Your task to perform on an android device: Go to Wikipedia Image 0: 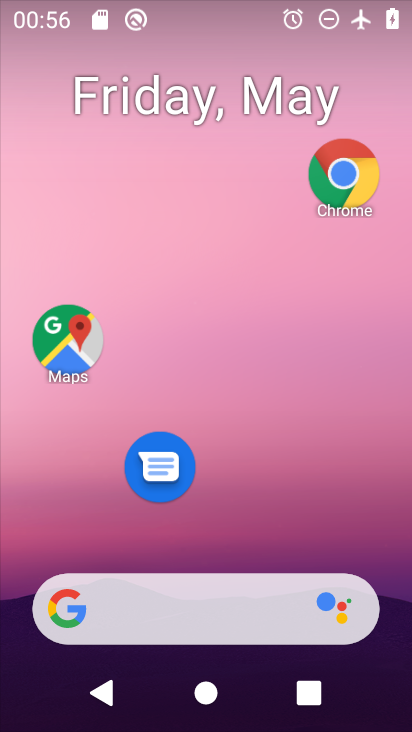
Step 0: click (227, 309)
Your task to perform on an android device: Go to Wikipedia Image 1: 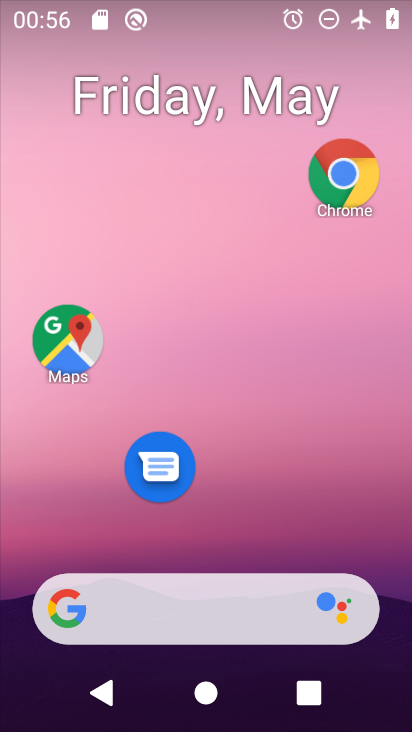
Step 1: click (340, 169)
Your task to perform on an android device: Go to Wikipedia Image 2: 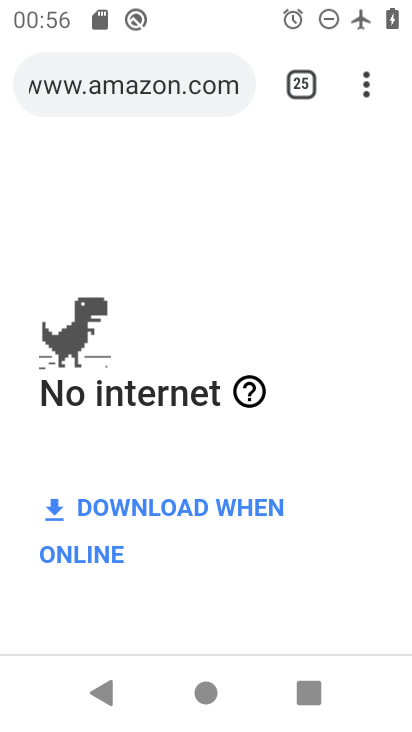
Step 2: click (368, 69)
Your task to perform on an android device: Go to Wikipedia Image 3: 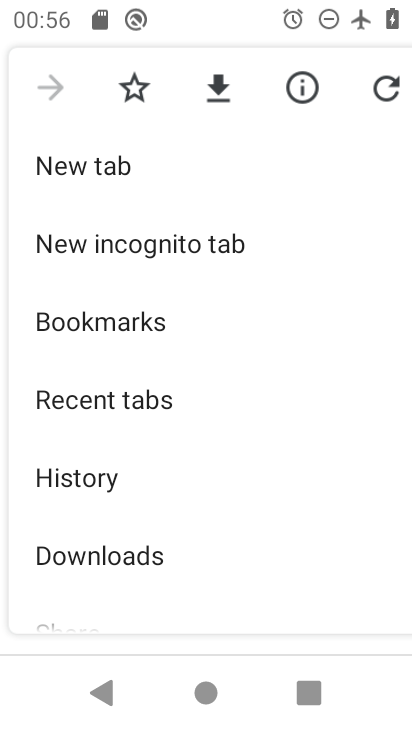
Step 3: click (115, 177)
Your task to perform on an android device: Go to Wikipedia Image 4: 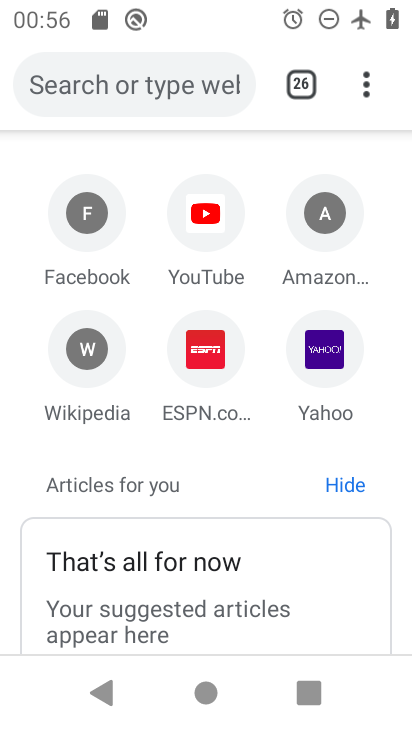
Step 4: click (72, 339)
Your task to perform on an android device: Go to Wikipedia Image 5: 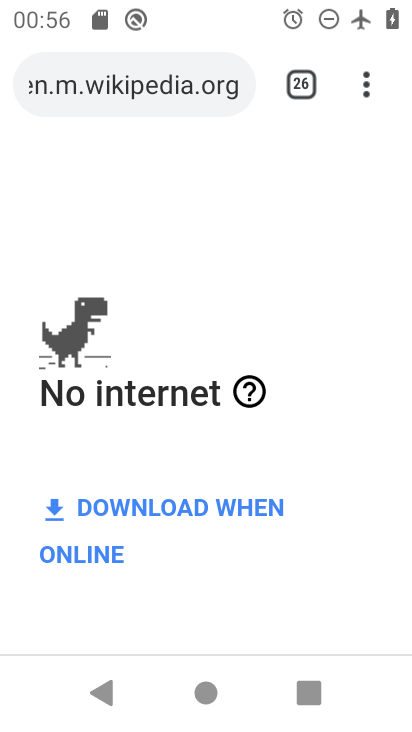
Step 5: task complete